Your task to perform on an android device: Open internet settings Image 0: 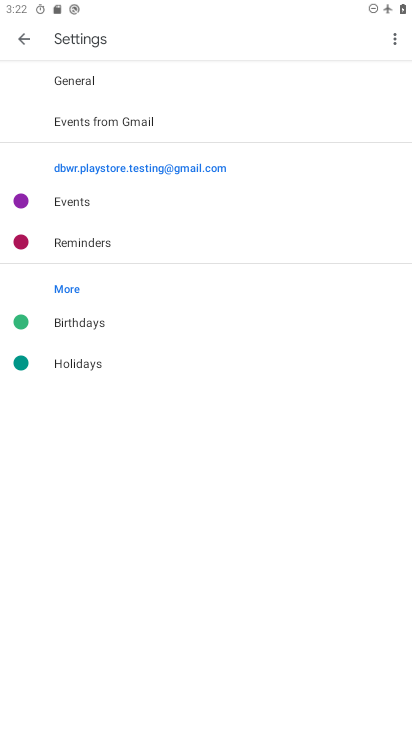
Step 0: press home button
Your task to perform on an android device: Open internet settings Image 1: 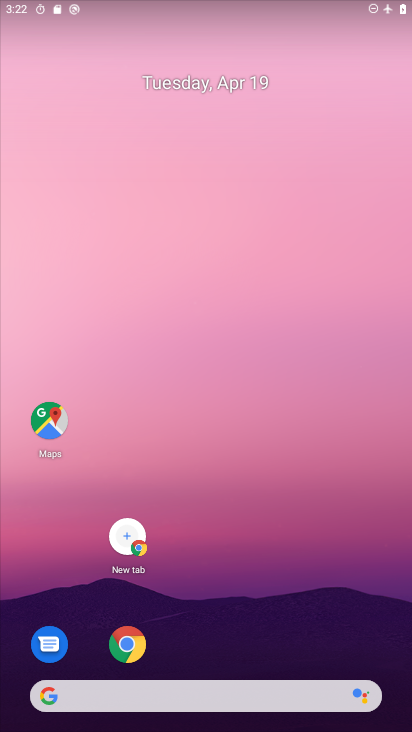
Step 1: drag from (190, 535) to (133, 163)
Your task to perform on an android device: Open internet settings Image 2: 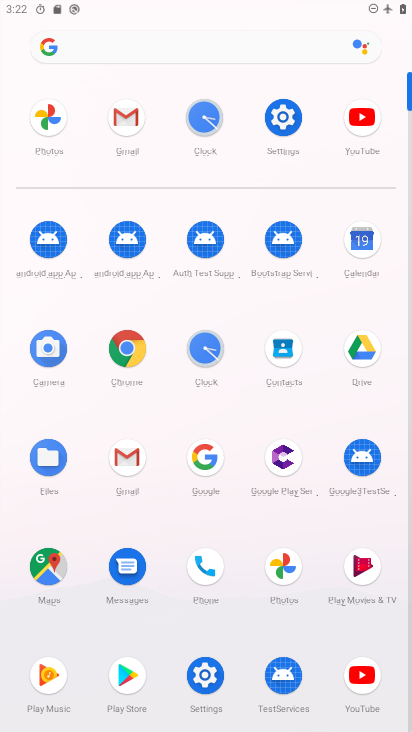
Step 2: click (286, 131)
Your task to perform on an android device: Open internet settings Image 3: 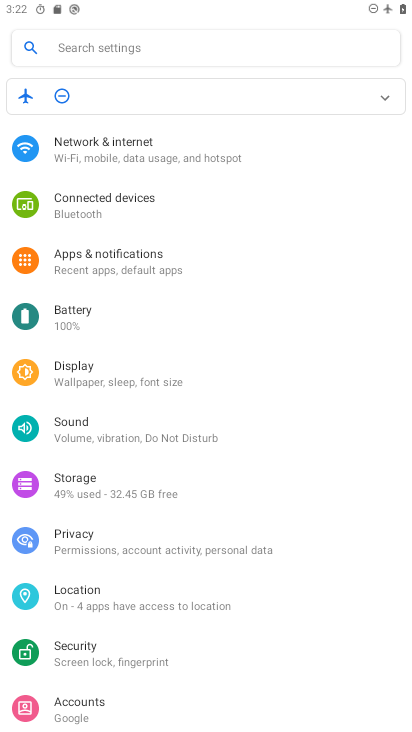
Step 3: click (183, 159)
Your task to perform on an android device: Open internet settings Image 4: 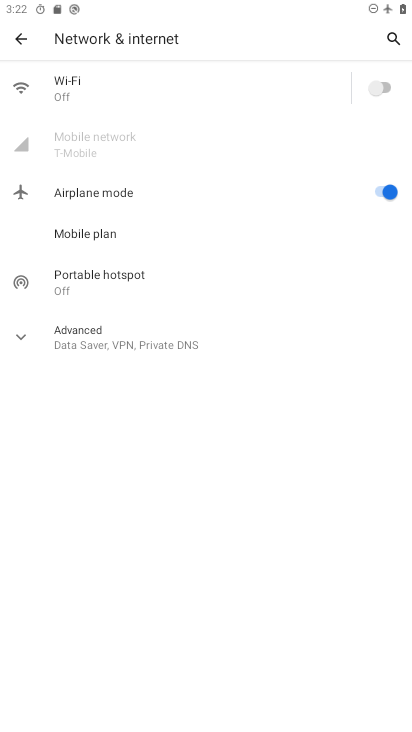
Step 4: task complete